Your task to perform on an android device: Open Android settings Image 0: 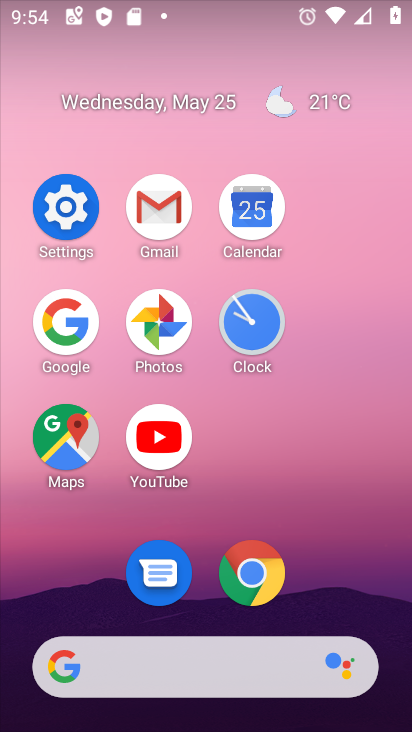
Step 0: click (89, 220)
Your task to perform on an android device: Open Android settings Image 1: 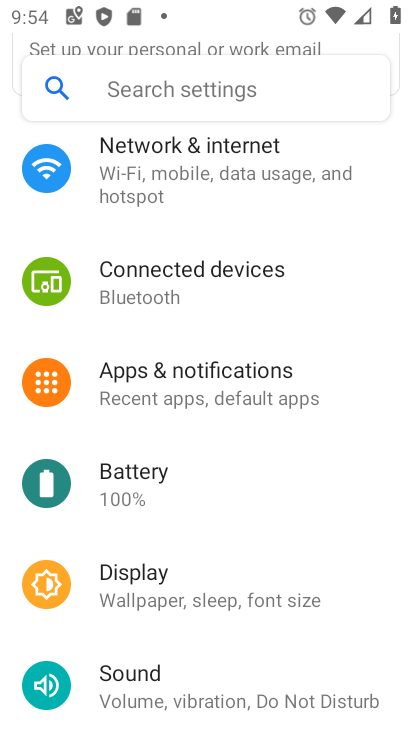
Step 1: task complete